Your task to perform on an android device: toggle data saver in the chrome app Image 0: 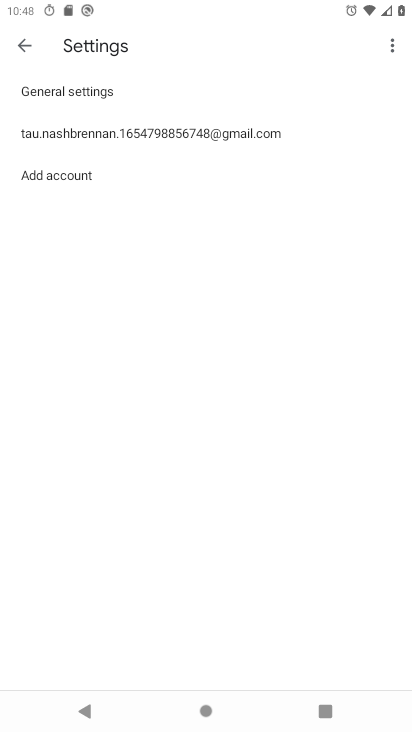
Step 0: click (22, 52)
Your task to perform on an android device: toggle data saver in the chrome app Image 1: 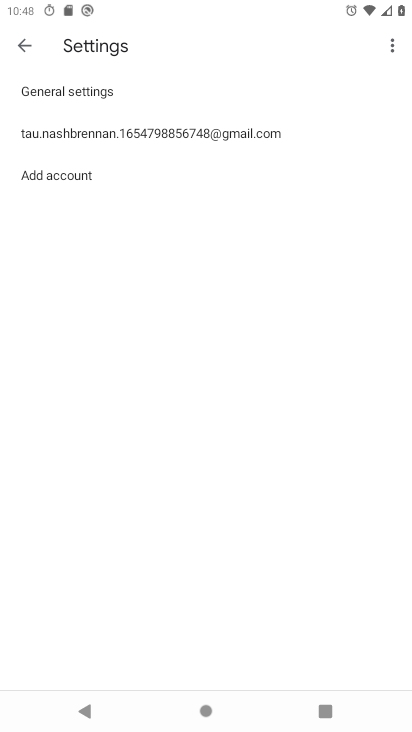
Step 1: click (22, 52)
Your task to perform on an android device: toggle data saver in the chrome app Image 2: 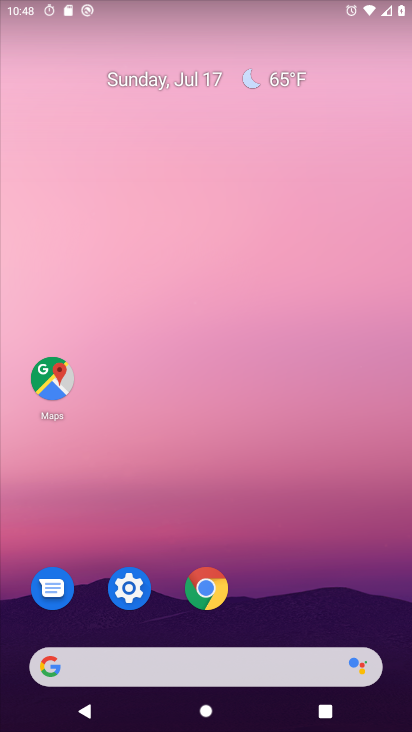
Step 2: drag from (289, 614) to (226, 66)
Your task to perform on an android device: toggle data saver in the chrome app Image 3: 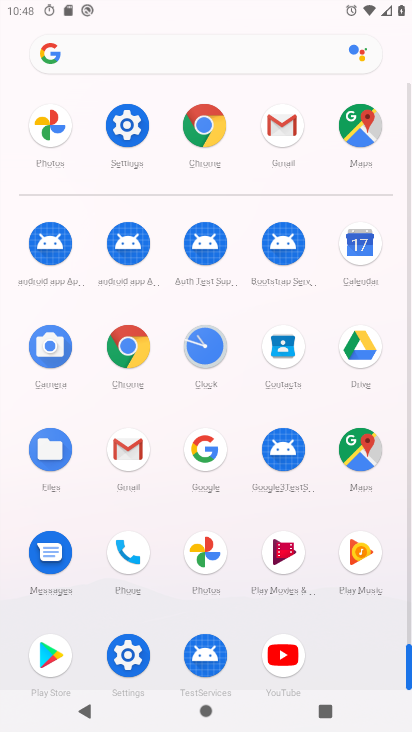
Step 3: drag from (225, 41) to (154, 90)
Your task to perform on an android device: toggle data saver in the chrome app Image 4: 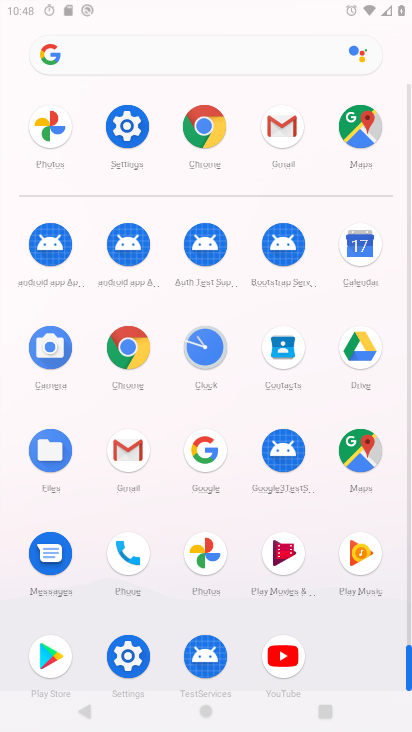
Step 4: click (191, 47)
Your task to perform on an android device: toggle data saver in the chrome app Image 5: 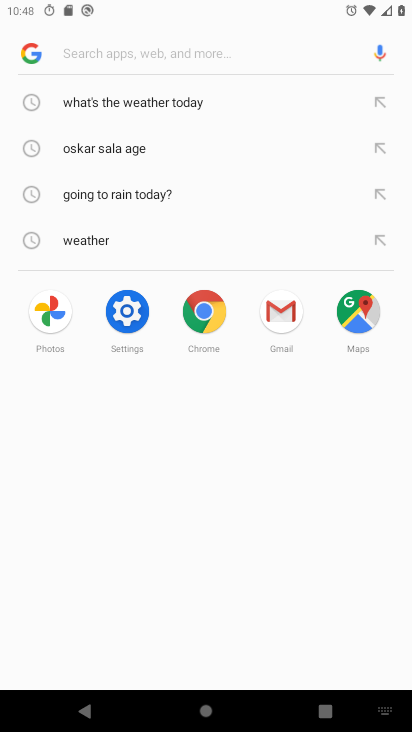
Step 5: click (203, 142)
Your task to perform on an android device: toggle data saver in the chrome app Image 6: 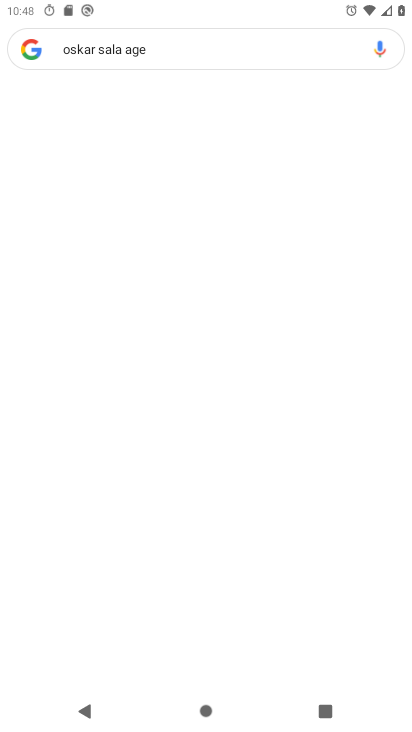
Step 6: click (202, 294)
Your task to perform on an android device: toggle data saver in the chrome app Image 7: 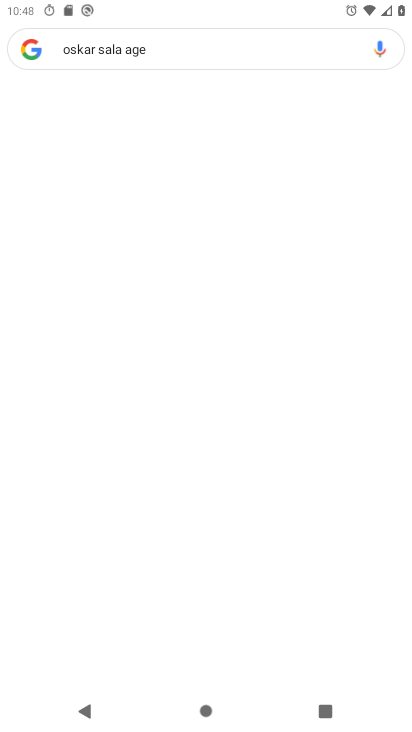
Step 7: click (202, 295)
Your task to perform on an android device: toggle data saver in the chrome app Image 8: 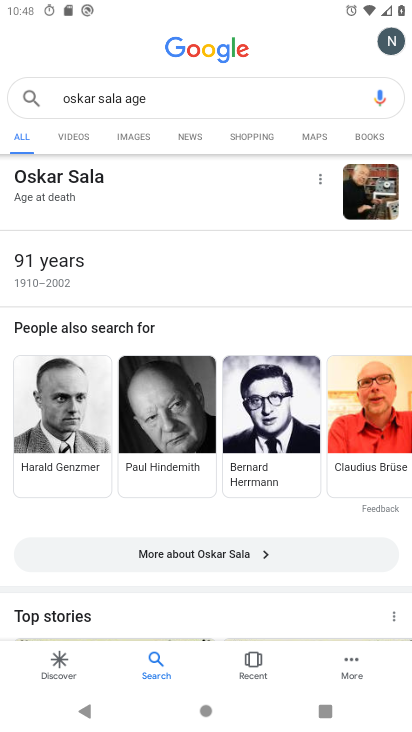
Step 8: press back button
Your task to perform on an android device: toggle data saver in the chrome app Image 9: 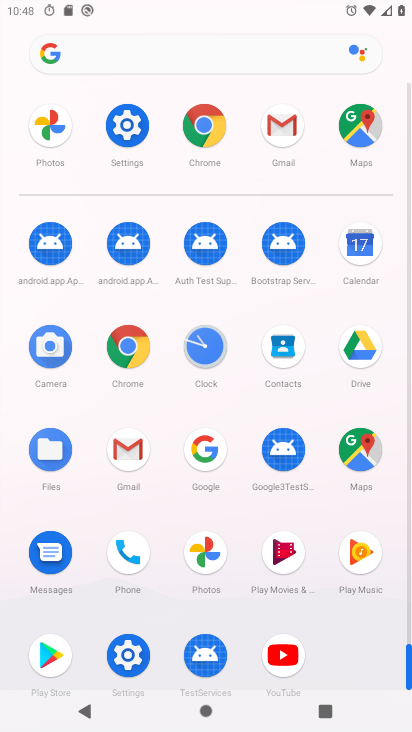
Step 9: click (210, 110)
Your task to perform on an android device: toggle data saver in the chrome app Image 10: 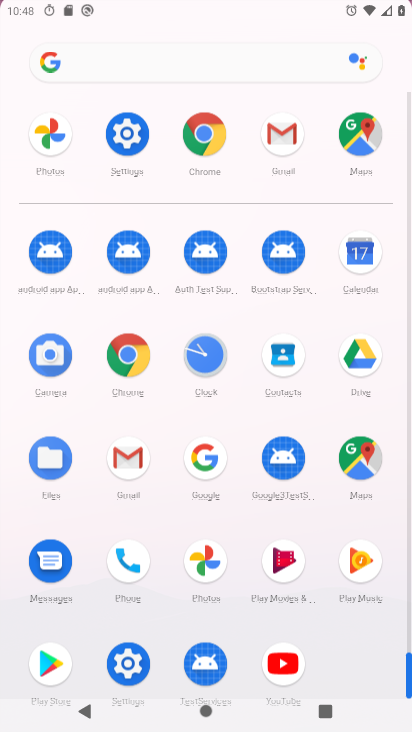
Step 10: click (202, 126)
Your task to perform on an android device: toggle data saver in the chrome app Image 11: 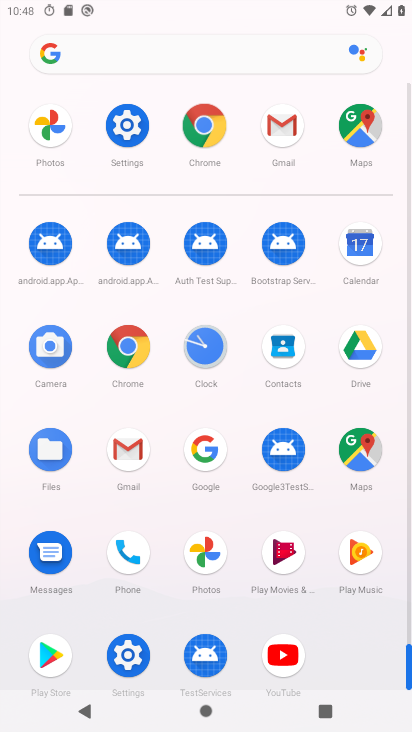
Step 11: click (200, 143)
Your task to perform on an android device: toggle data saver in the chrome app Image 12: 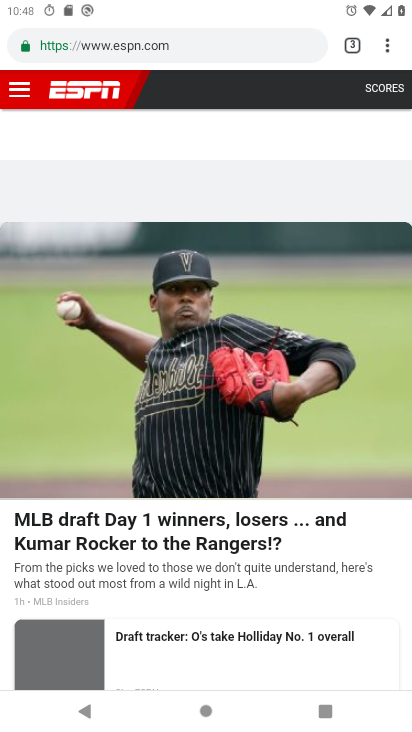
Step 12: drag from (388, 49) to (238, 525)
Your task to perform on an android device: toggle data saver in the chrome app Image 13: 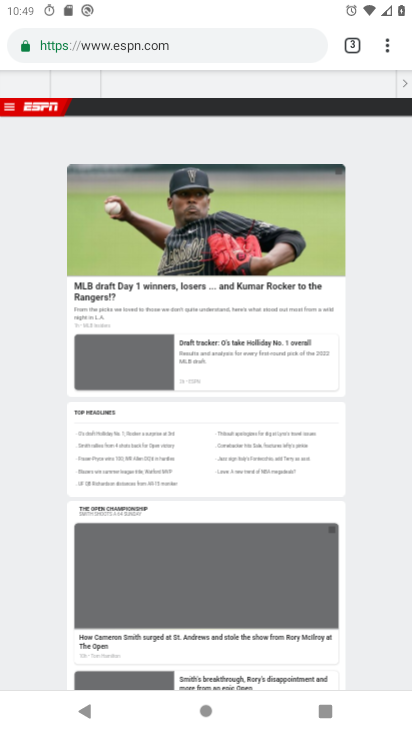
Step 13: click (387, 43)
Your task to perform on an android device: toggle data saver in the chrome app Image 14: 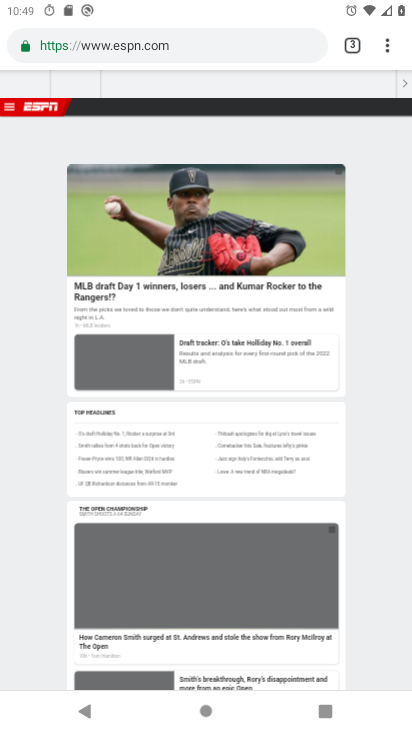
Step 14: drag from (387, 45) to (213, 545)
Your task to perform on an android device: toggle data saver in the chrome app Image 15: 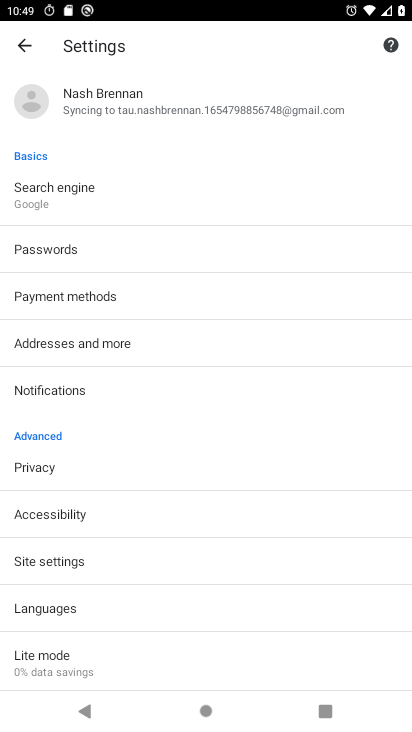
Step 15: click (51, 556)
Your task to perform on an android device: toggle data saver in the chrome app Image 16: 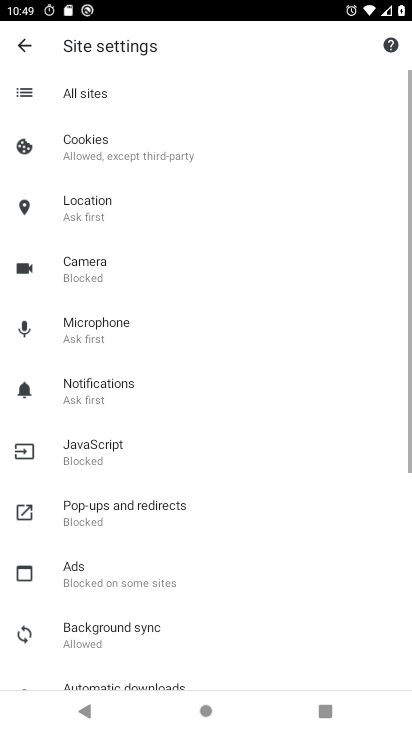
Step 16: click (24, 39)
Your task to perform on an android device: toggle data saver in the chrome app Image 17: 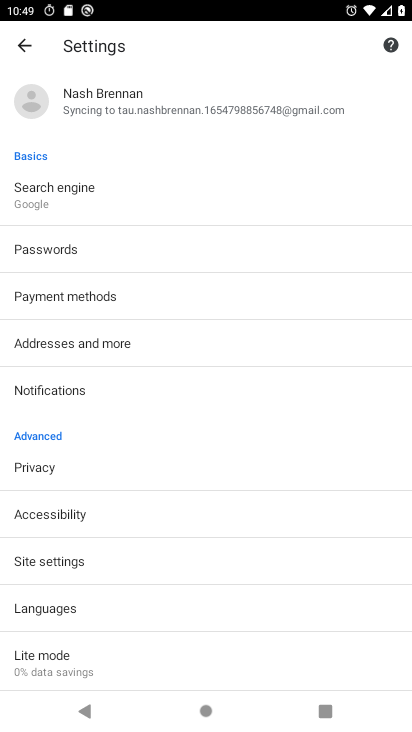
Step 17: click (35, 648)
Your task to perform on an android device: toggle data saver in the chrome app Image 18: 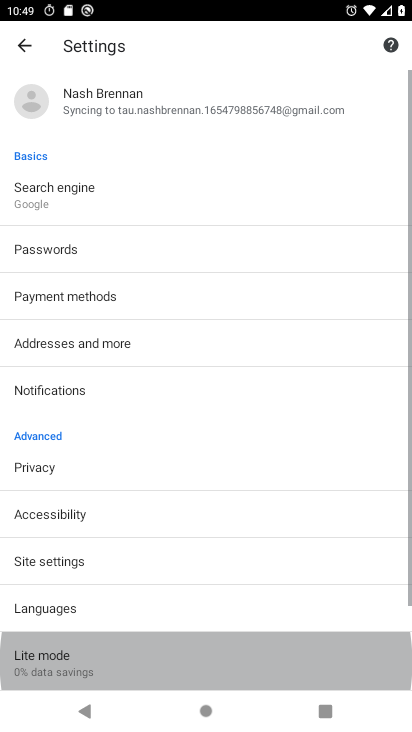
Step 18: click (39, 645)
Your task to perform on an android device: toggle data saver in the chrome app Image 19: 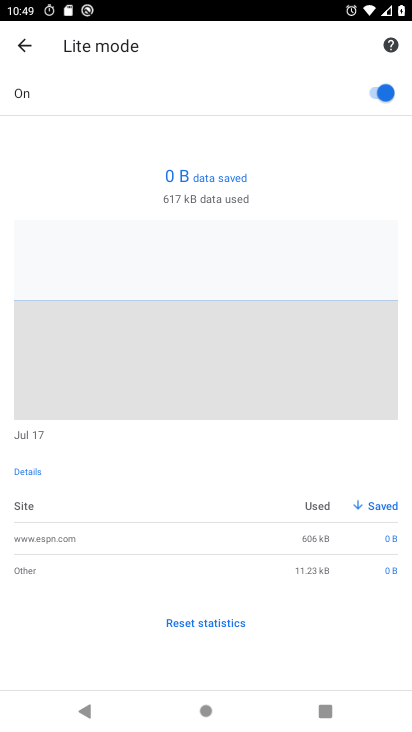
Step 19: task complete